Your task to perform on an android device: clear history in the chrome app Image 0: 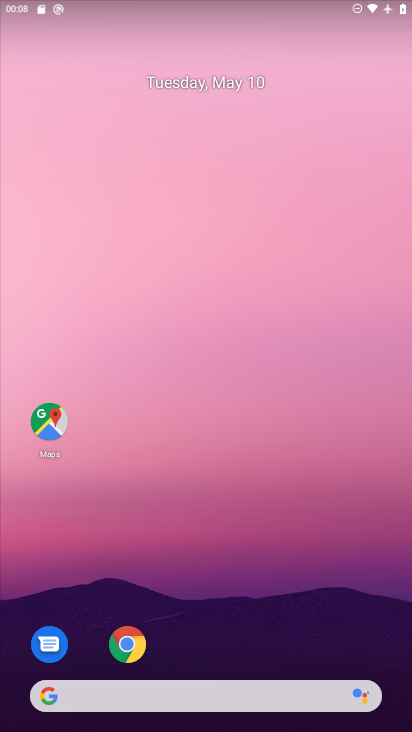
Step 0: click (130, 633)
Your task to perform on an android device: clear history in the chrome app Image 1: 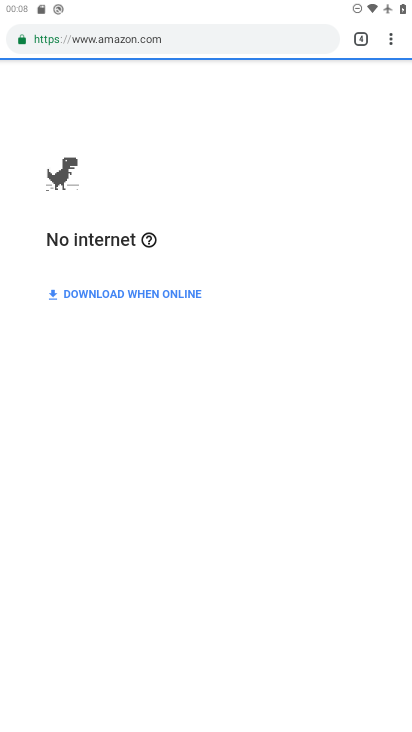
Step 1: drag from (383, 43) to (271, 213)
Your task to perform on an android device: clear history in the chrome app Image 2: 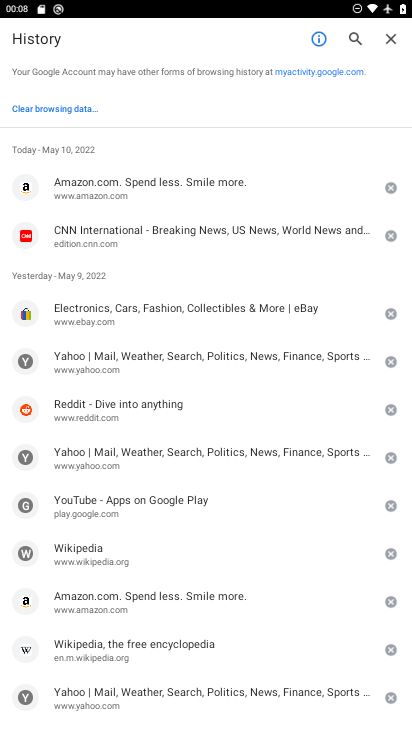
Step 2: click (45, 110)
Your task to perform on an android device: clear history in the chrome app Image 3: 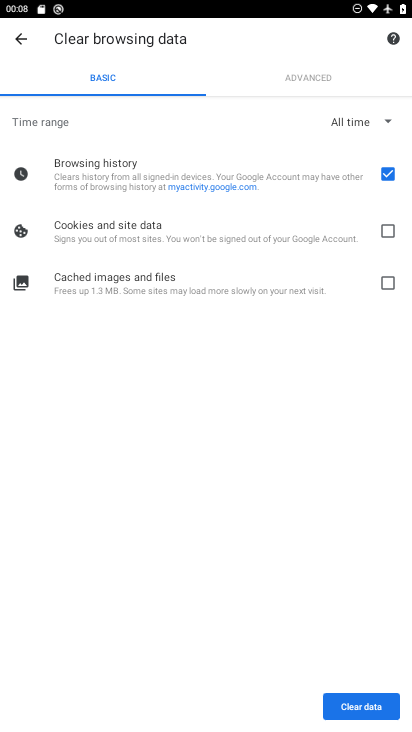
Step 3: click (387, 283)
Your task to perform on an android device: clear history in the chrome app Image 4: 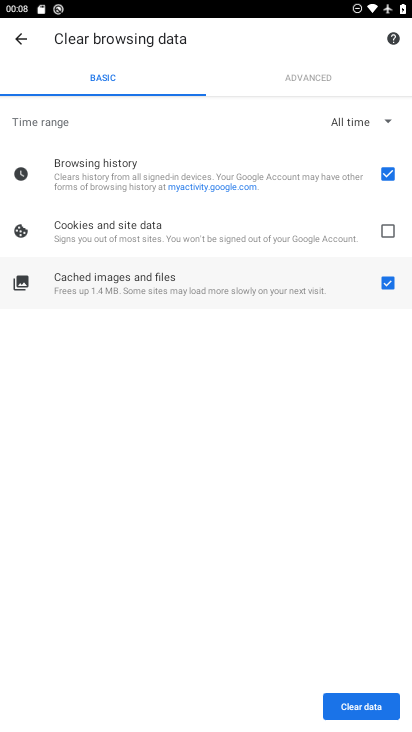
Step 4: click (388, 234)
Your task to perform on an android device: clear history in the chrome app Image 5: 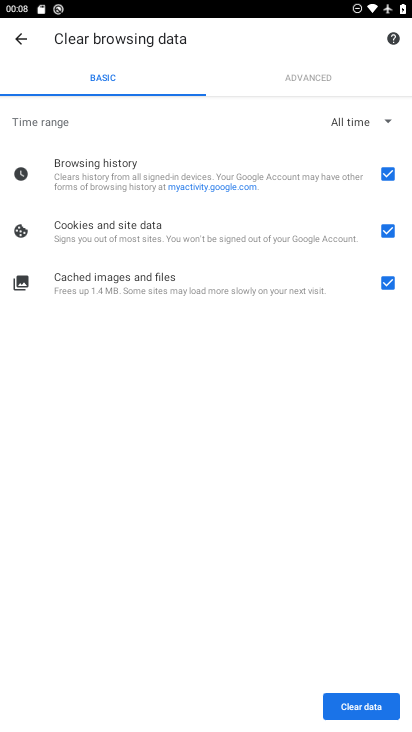
Step 5: click (378, 708)
Your task to perform on an android device: clear history in the chrome app Image 6: 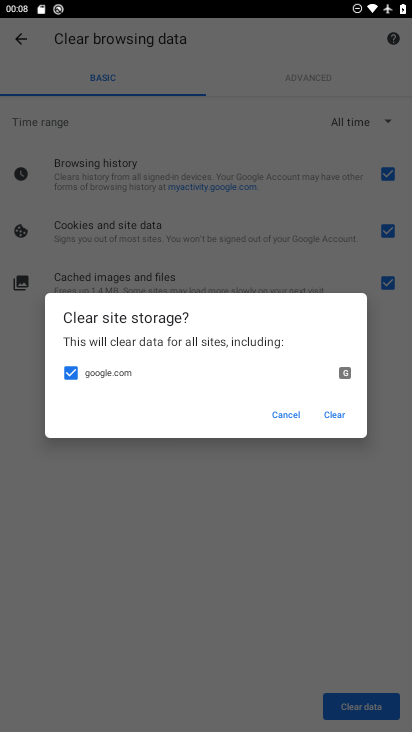
Step 6: click (333, 408)
Your task to perform on an android device: clear history in the chrome app Image 7: 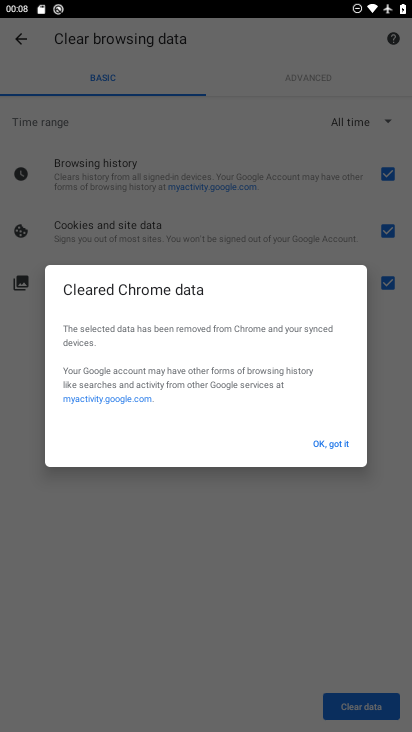
Step 7: task complete